Your task to perform on an android device: Open network settings Image 0: 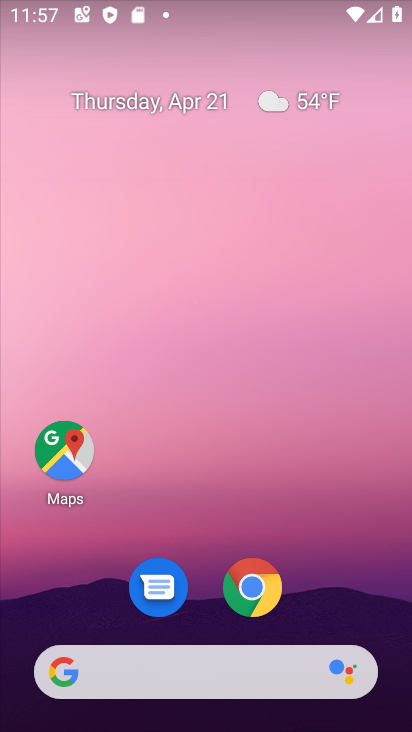
Step 0: drag from (342, 591) to (363, 116)
Your task to perform on an android device: Open network settings Image 1: 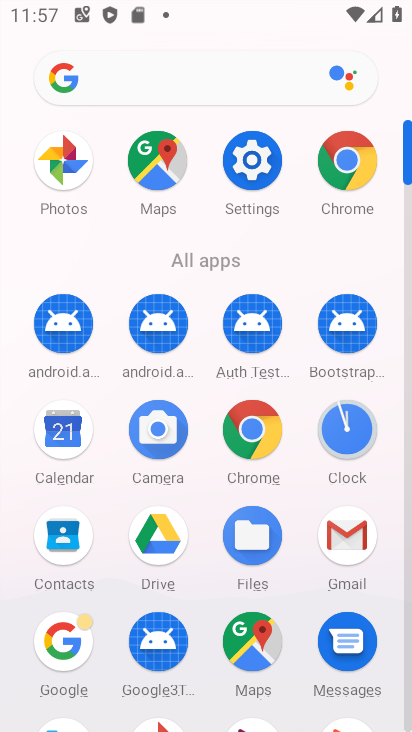
Step 1: click (259, 164)
Your task to perform on an android device: Open network settings Image 2: 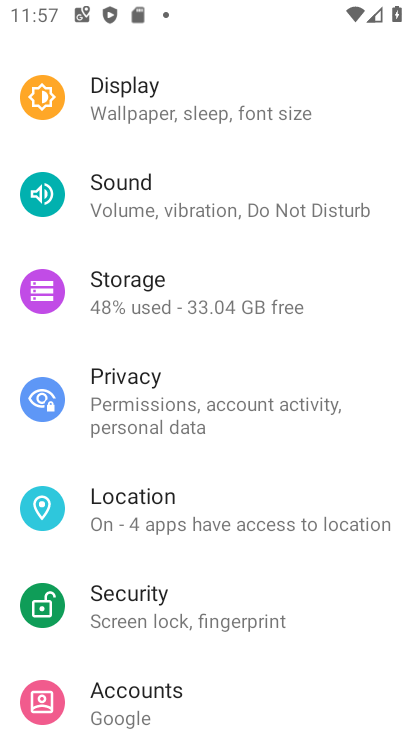
Step 2: drag from (333, 164) to (345, 509)
Your task to perform on an android device: Open network settings Image 3: 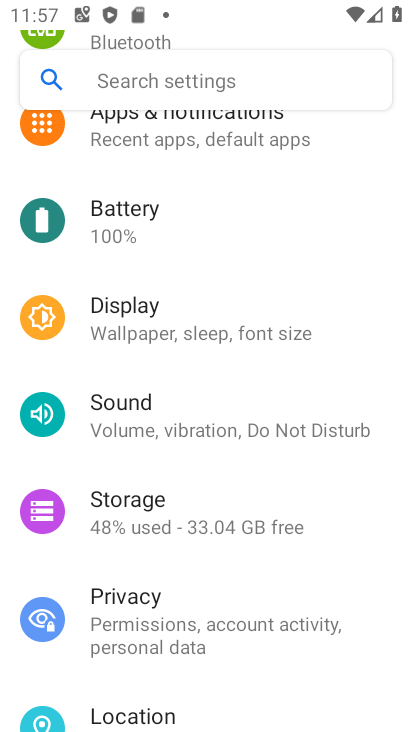
Step 3: drag from (358, 243) to (358, 464)
Your task to perform on an android device: Open network settings Image 4: 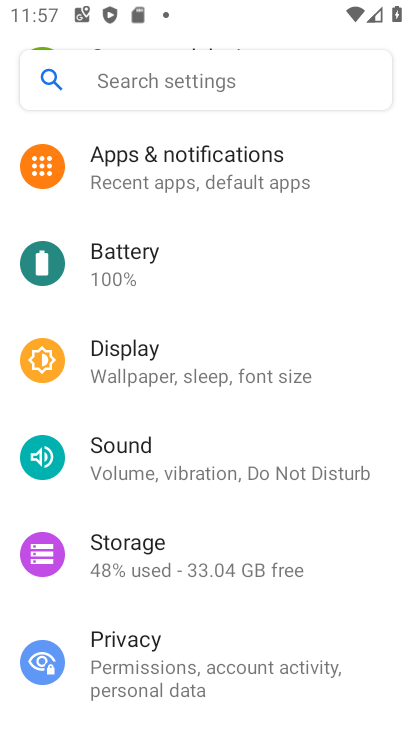
Step 4: drag from (282, 289) to (295, 640)
Your task to perform on an android device: Open network settings Image 5: 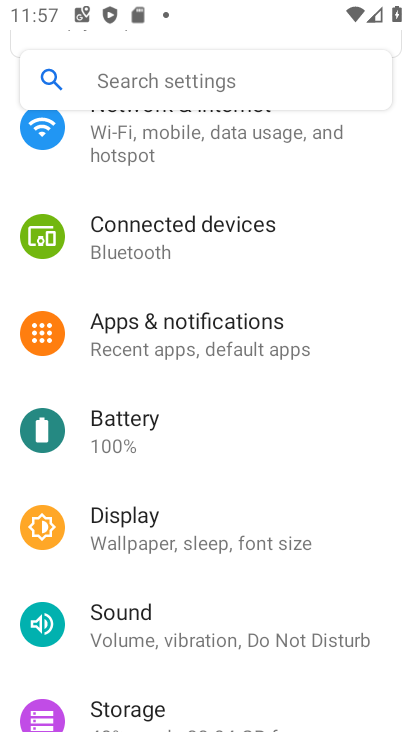
Step 5: drag from (284, 253) to (295, 521)
Your task to perform on an android device: Open network settings Image 6: 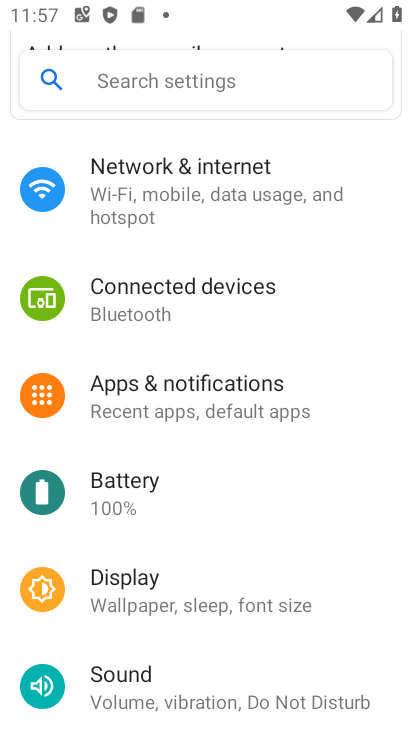
Step 6: click (178, 204)
Your task to perform on an android device: Open network settings Image 7: 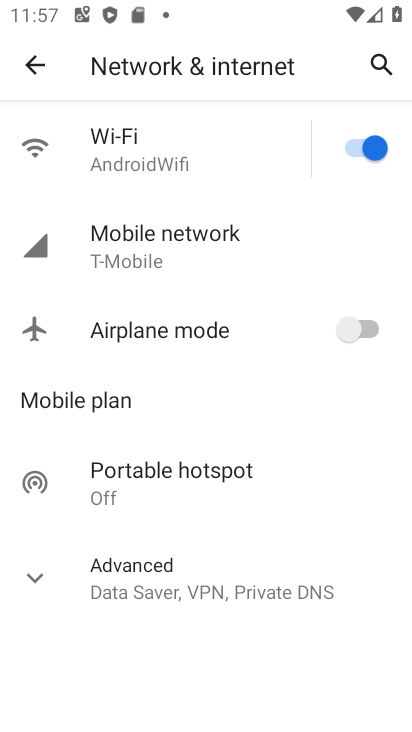
Step 7: click (152, 250)
Your task to perform on an android device: Open network settings Image 8: 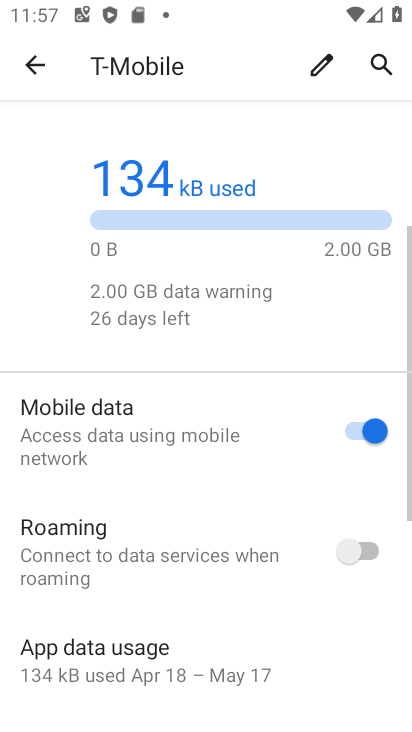
Step 8: drag from (160, 444) to (194, 127)
Your task to perform on an android device: Open network settings Image 9: 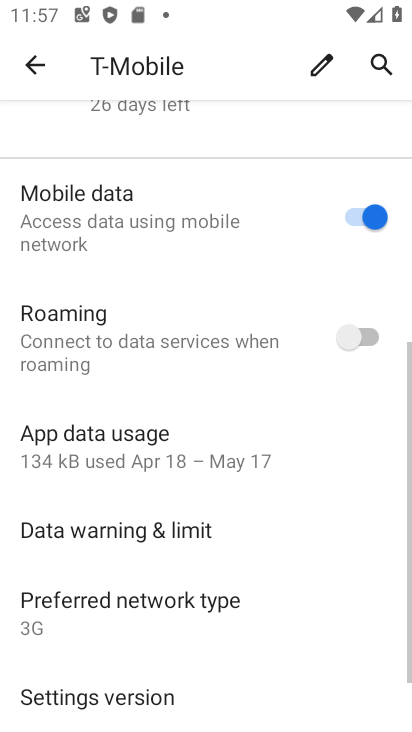
Step 9: drag from (151, 607) to (190, 210)
Your task to perform on an android device: Open network settings Image 10: 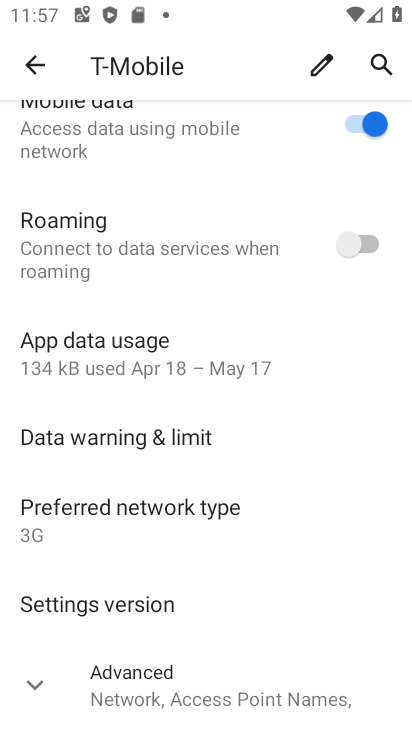
Step 10: click (42, 687)
Your task to perform on an android device: Open network settings Image 11: 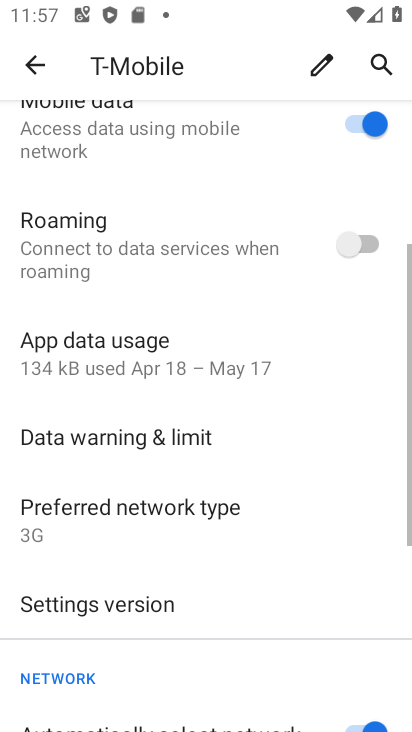
Step 11: task complete